Your task to perform on an android device: turn off javascript in the chrome app Image 0: 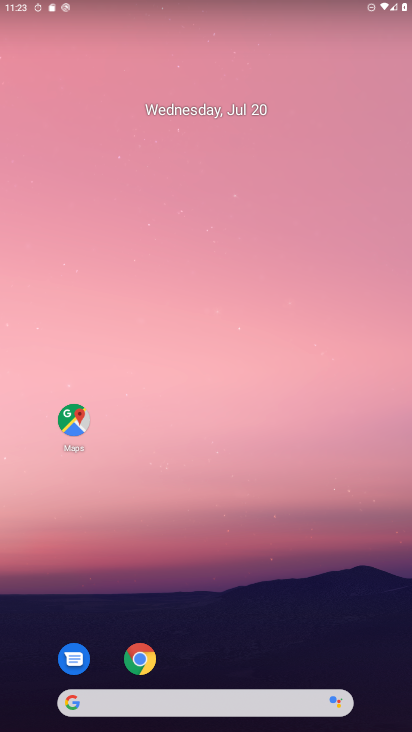
Step 0: drag from (229, 630) to (242, 66)
Your task to perform on an android device: turn off javascript in the chrome app Image 1: 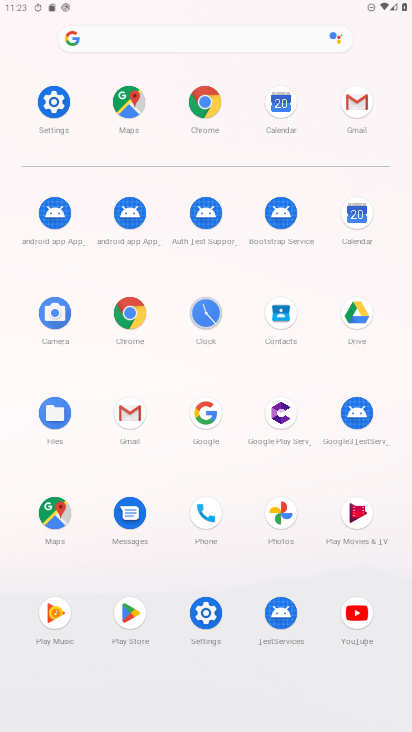
Step 1: click (209, 98)
Your task to perform on an android device: turn off javascript in the chrome app Image 2: 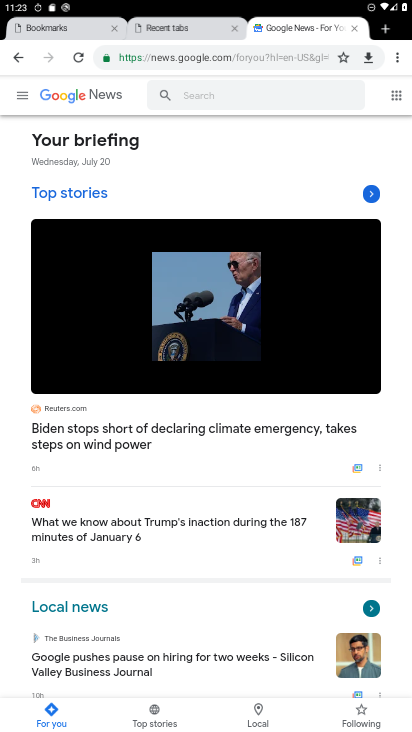
Step 2: drag from (397, 62) to (287, 386)
Your task to perform on an android device: turn off javascript in the chrome app Image 3: 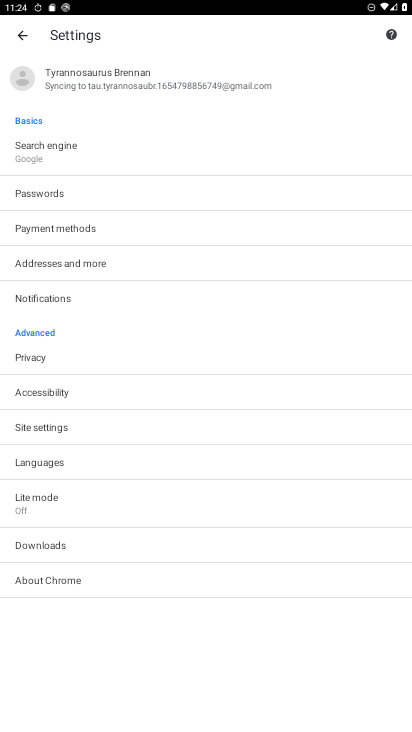
Step 3: click (61, 431)
Your task to perform on an android device: turn off javascript in the chrome app Image 4: 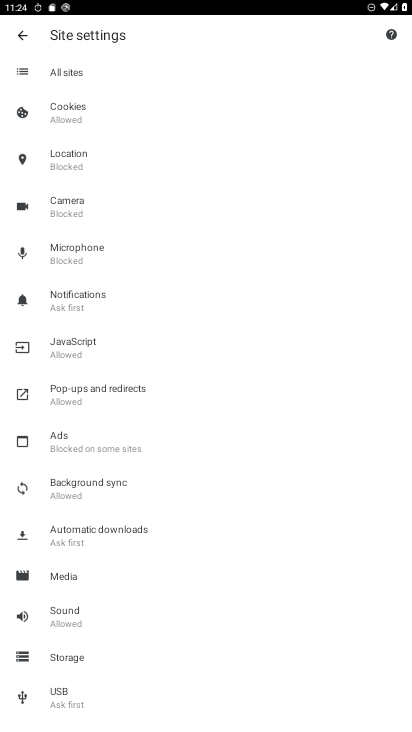
Step 4: click (76, 353)
Your task to perform on an android device: turn off javascript in the chrome app Image 5: 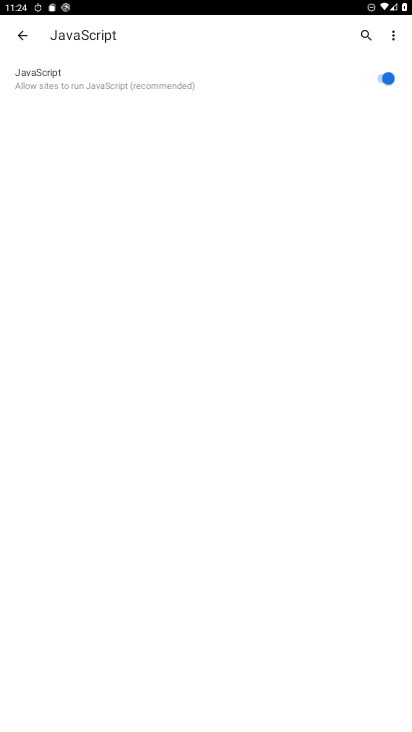
Step 5: click (380, 77)
Your task to perform on an android device: turn off javascript in the chrome app Image 6: 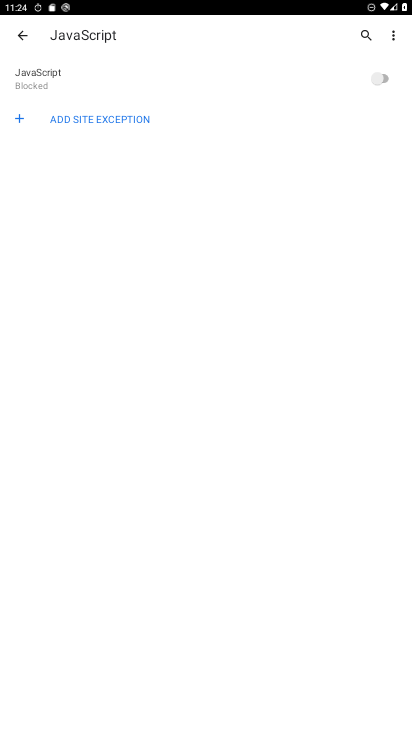
Step 6: task complete